Your task to perform on an android device: check android version Image 0: 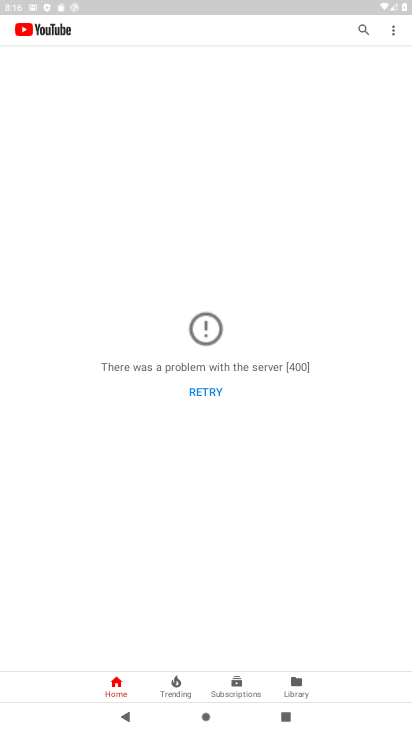
Step 0: press home button
Your task to perform on an android device: check android version Image 1: 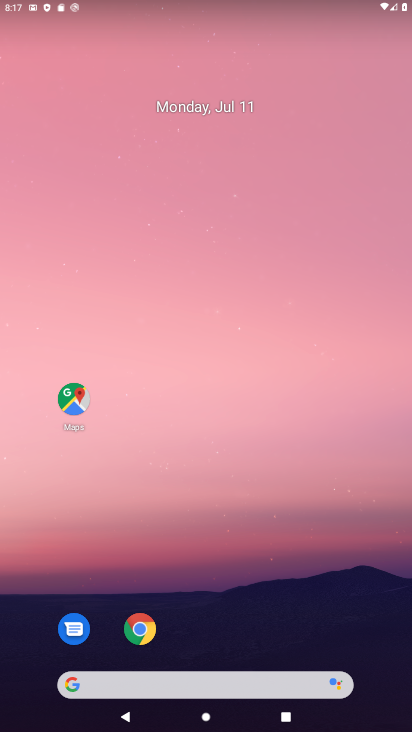
Step 1: drag from (222, 623) to (197, 1)
Your task to perform on an android device: check android version Image 2: 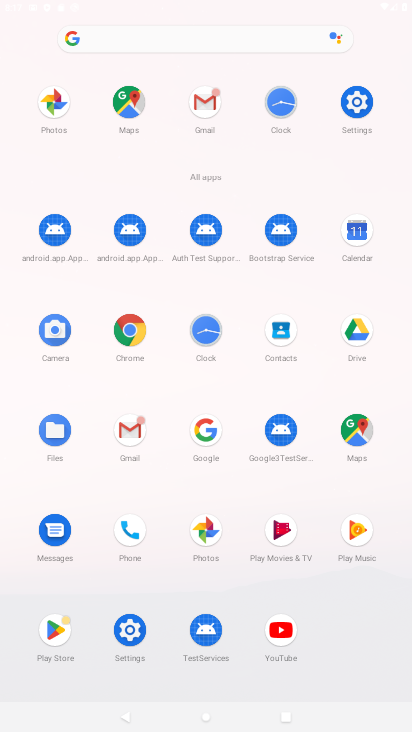
Step 2: click (128, 637)
Your task to perform on an android device: check android version Image 3: 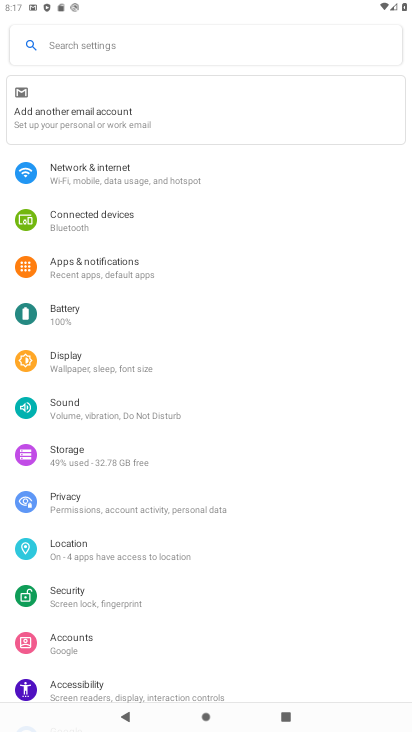
Step 3: drag from (68, 566) to (227, 19)
Your task to perform on an android device: check android version Image 4: 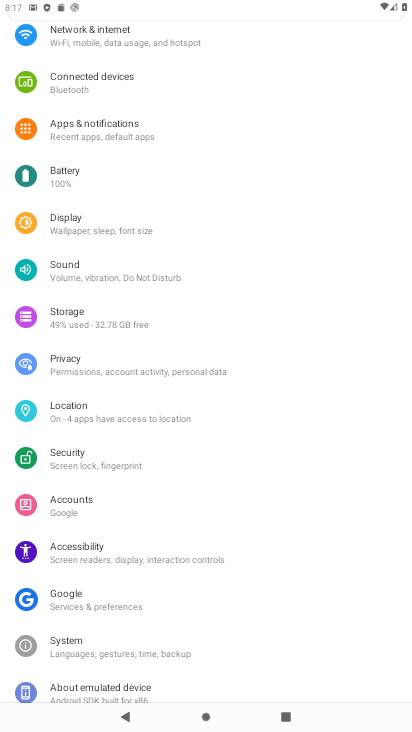
Step 4: click (98, 688)
Your task to perform on an android device: check android version Image 5: 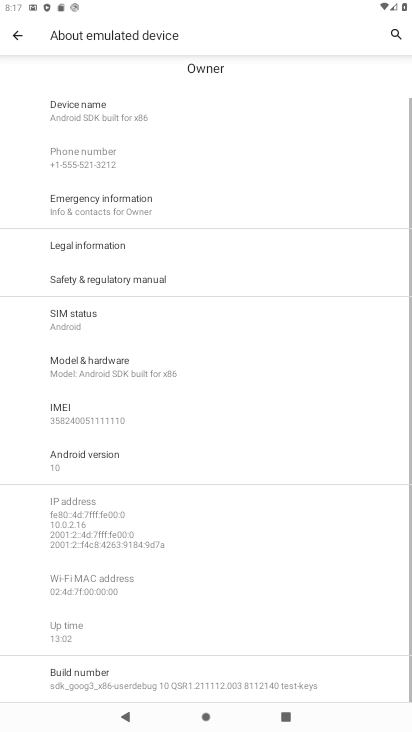
Step 5: click (89, 463)
Your task to perform on an android device: check android version Image 6: 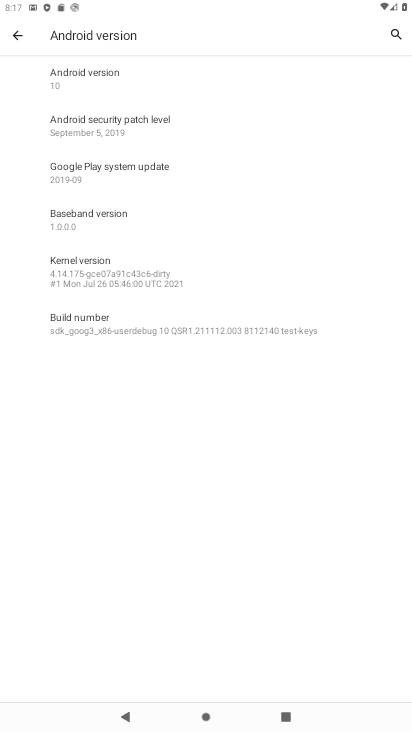
Step 6: click (99, 70)
Your task to perform on an android device: check android version Image 7: 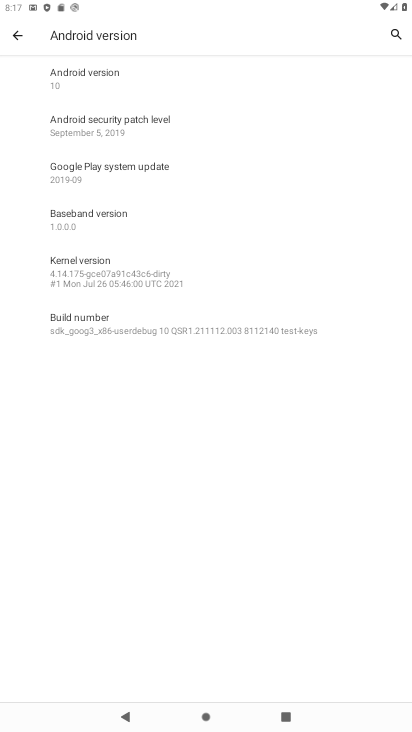
Step 7: task complete